Your task to perform on an android device: turn pop-ups off in chrome Image 0: 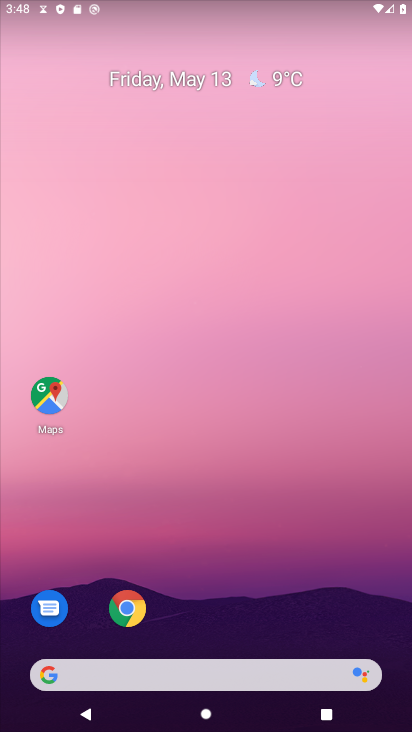
Step 0: click (141, 606)
Your task to perform on an android device: turn pop-ups off in chrome Image 1: 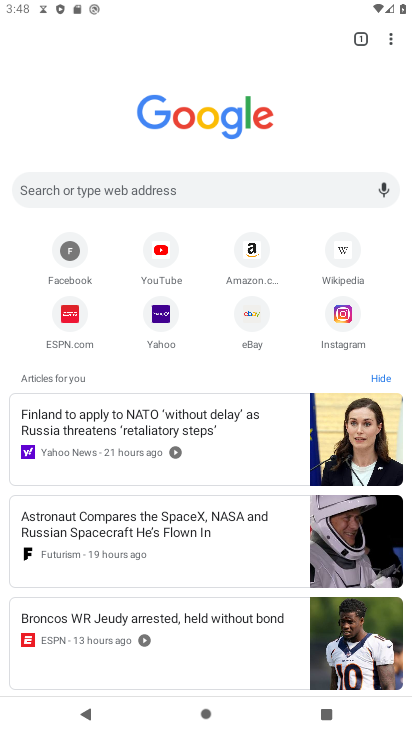
Step 1: click (395, 44)
Your task to perform on an android device: turn pop-ups off in chrome Image 2: 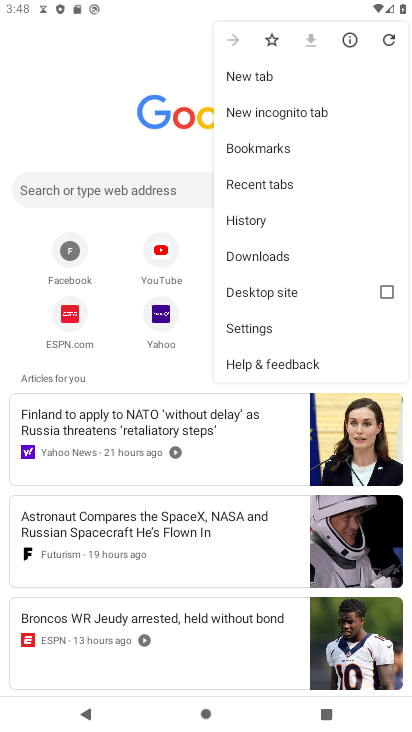
Step 2: click (266, 328)
Your task to perform on an android device: turn pop-ups off in chrome Image 3: 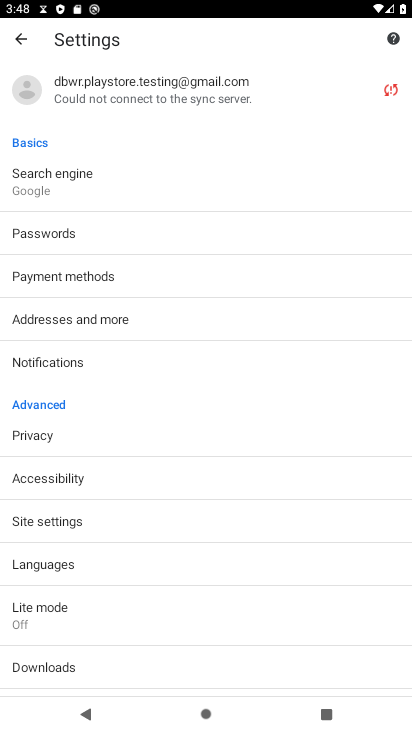
Step 3: drag from (164, 668) to (194, 366)
Your task to perform on an android device: turn pop-ups off in chrome Image 4: 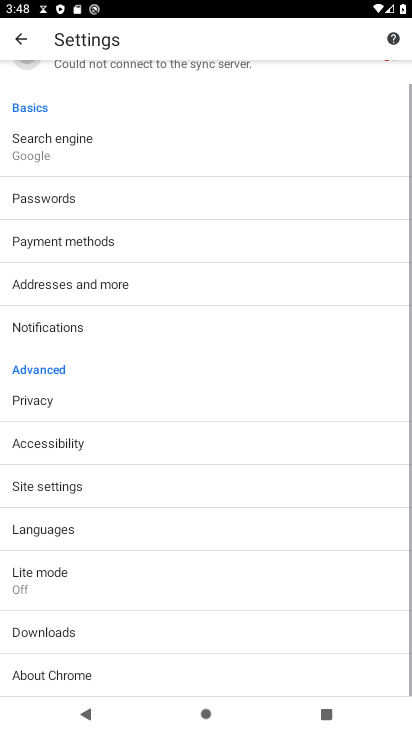
Step 4: click (61, 487)
Your task to perform on an android device: turn pop-ups off in chrome Image 5: 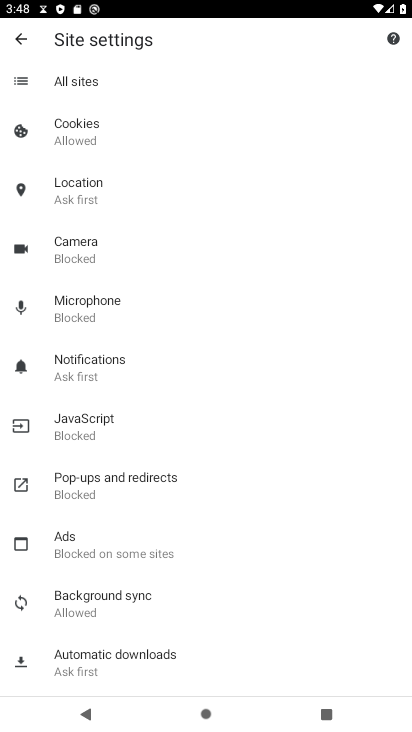
Step 5: click (101, 479)
Your task to perform on an android device: turn pop-ups off in chrome Image 6: 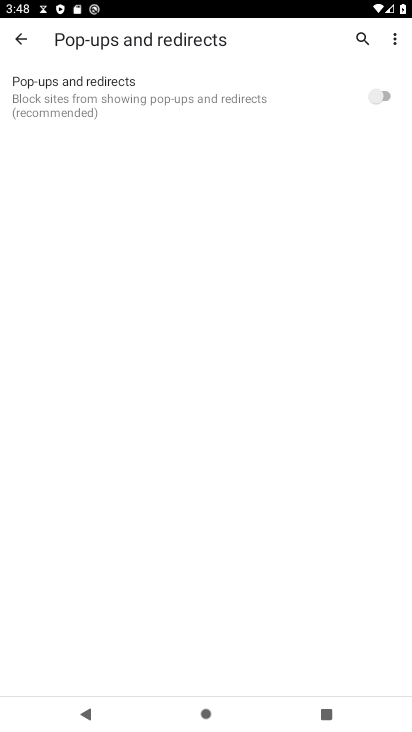
Step 6: task complete